Your task to perform on an android device: turn on wifi Image 0: 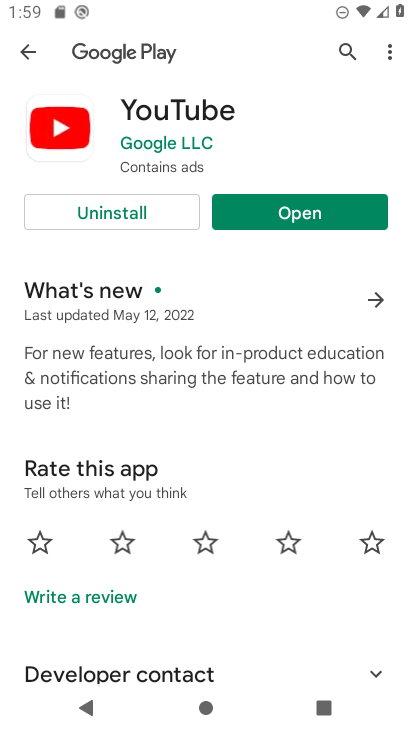
Step 0: press home button
Your task to perform on an android device: turn on wifi Image 1: 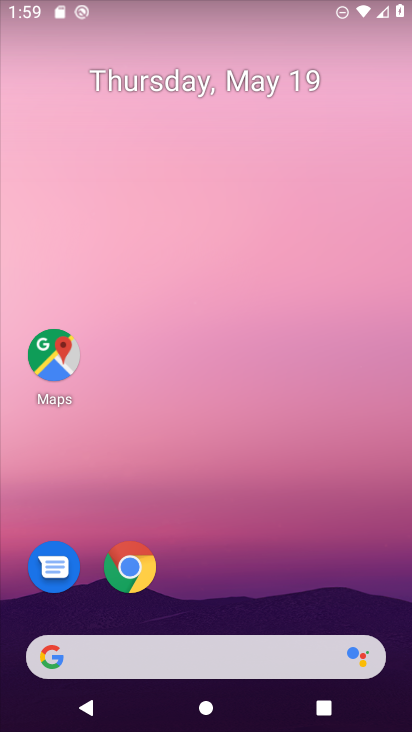
Step 1: drag from (279, 533) to (243, 47)
Your task to perform on an android device: turn on wifi Image 2: 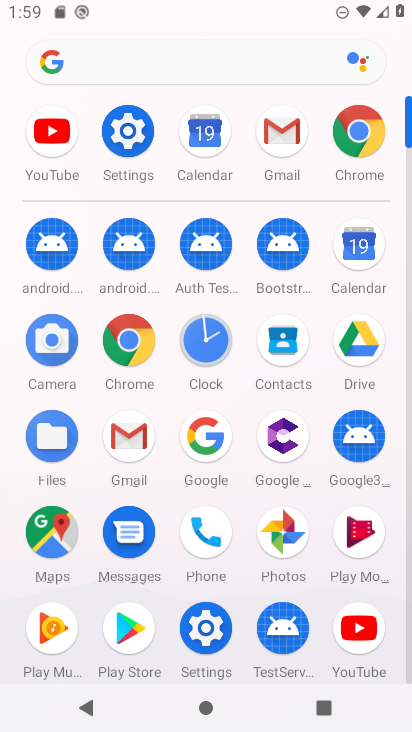
Step 2: click (134, 131)
Your task to perform on an android device: turn on wifi Image 3: 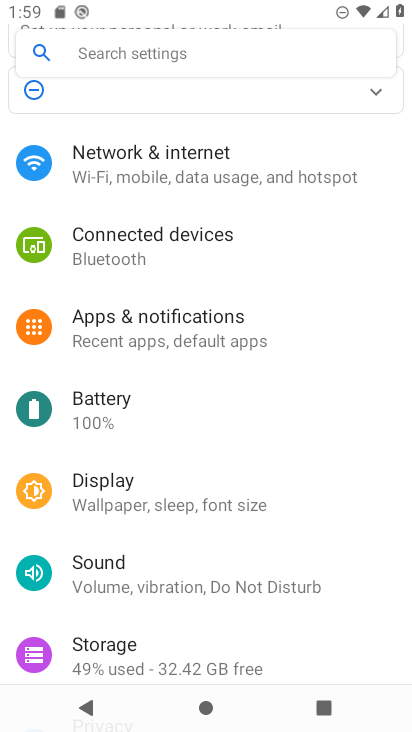
Step 3: click (140, 160)
Your task to perform on an android device: turn on wifi Image 4: 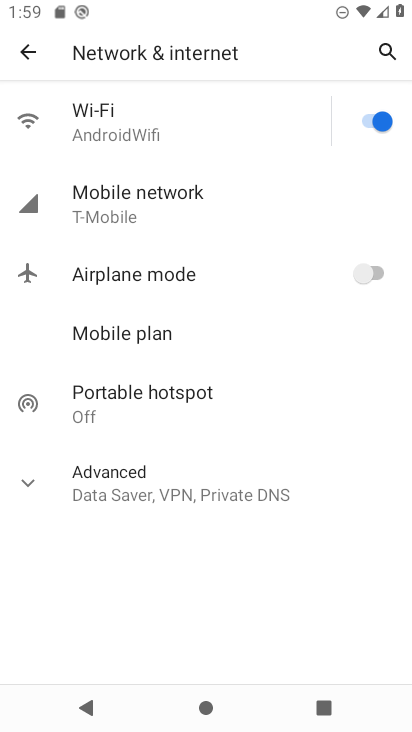
Step 4: task complete